Your task to perform on an android device: toggle location history Image 0: 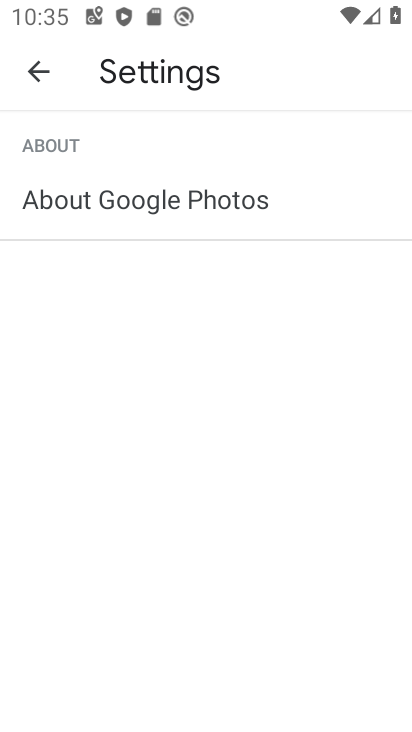
Step 0: press home button
Your task to perform on an android device: toggle location history Image 1: 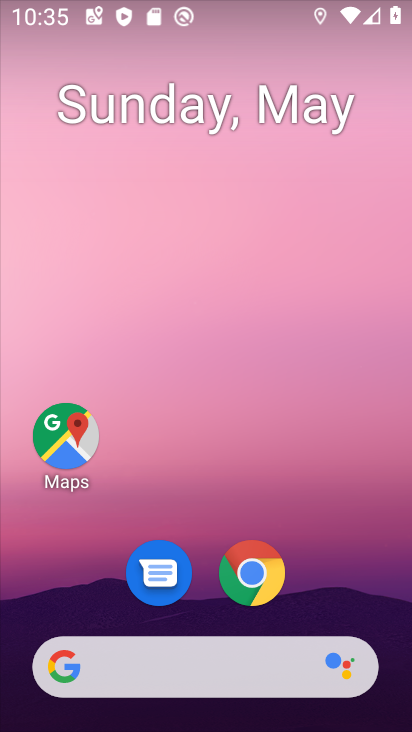
Step 1: drag from (221, 594) to (220, 431)
Your task to perform on an android device: toggle location history Image 2: 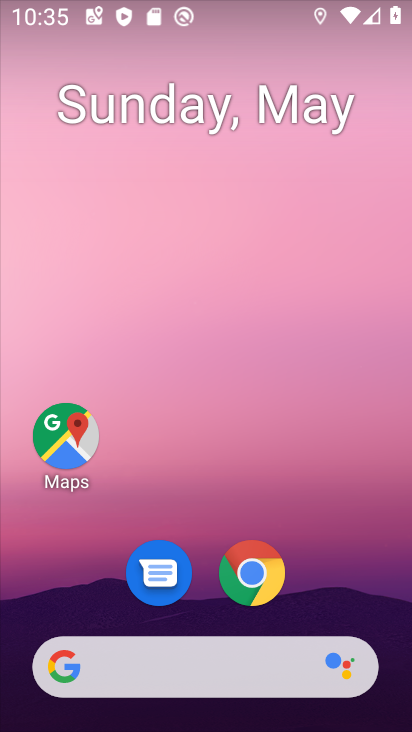
Step 2: drag from (196, 603) to (208, 166)
Your task to perform on an android device: toggle location history Image 3: 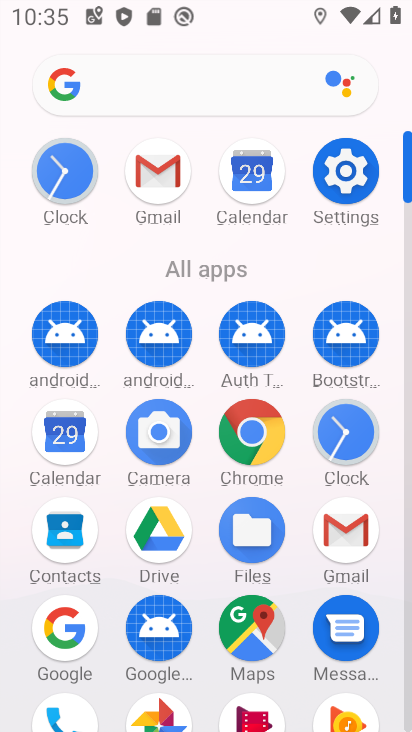
Step 3: click (352, 171)
Your task to perform on an android device: toggle location history Image 4: 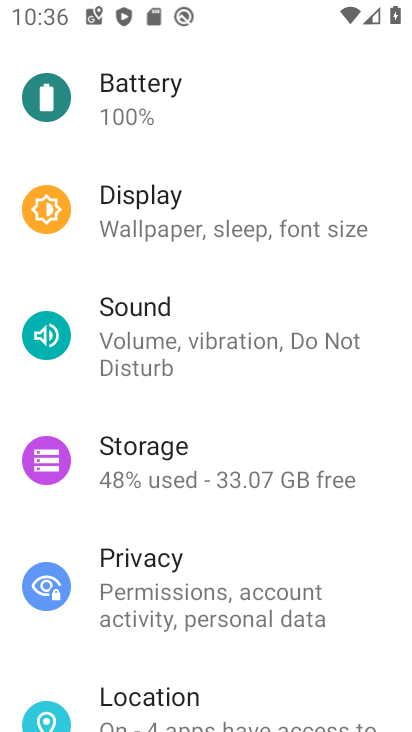
Step 4: drag from (145, 661) to (194, 379)
Your task to perform on an android device: toggle location history Image 5: 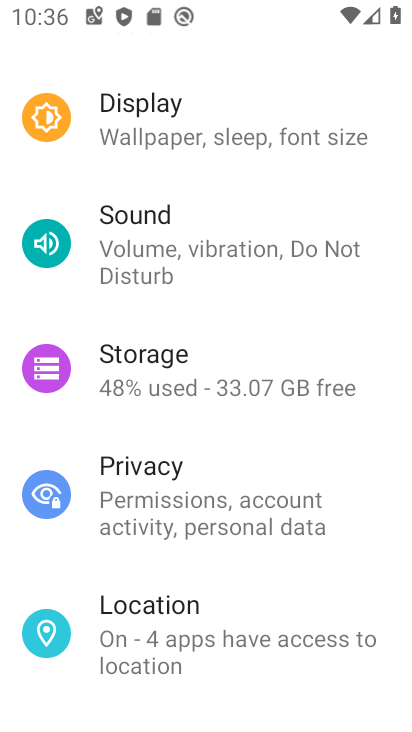
Step 5: click (175, 613)
Your task to perform on an android device: toggle location history Image 6: 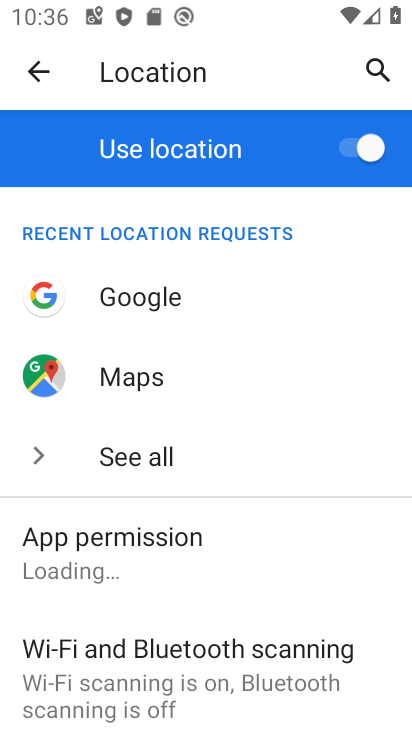
Step 6: drag from (171, 567) to (273, 211)
Your task to perform on an android device: toggle location history Image 7: 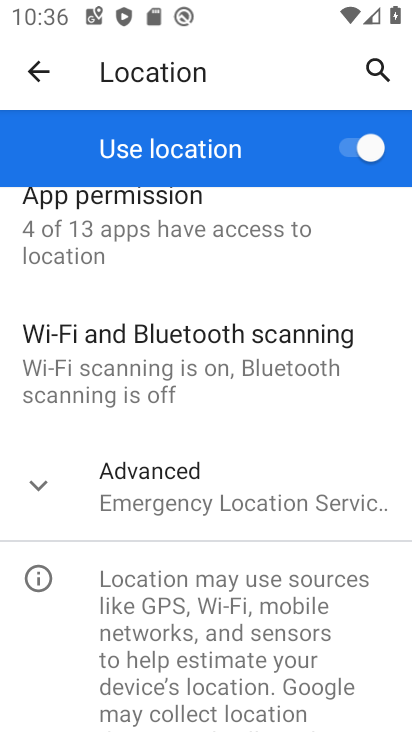
Step 7: click (54, 481)
Your task to perform on an android device: toggle location history Image 8: 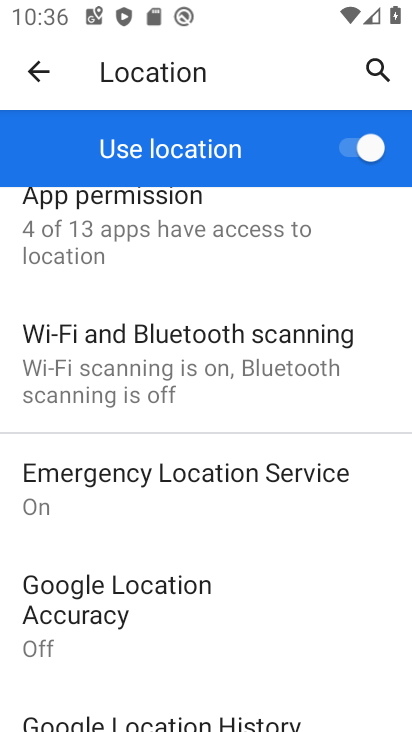
Step 8: drag from (141, 647) to (169, 395)
Your task to perform on an android device: toggle location history Image 9: 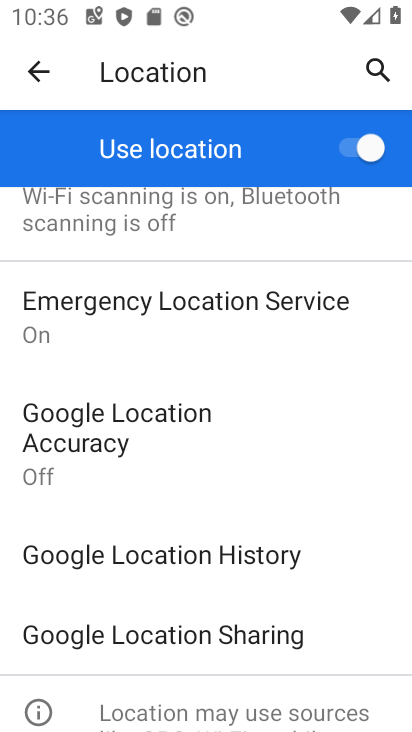
Step 9: click (197, 555)
Your task to perform on an android device: toggle location history Image 10: 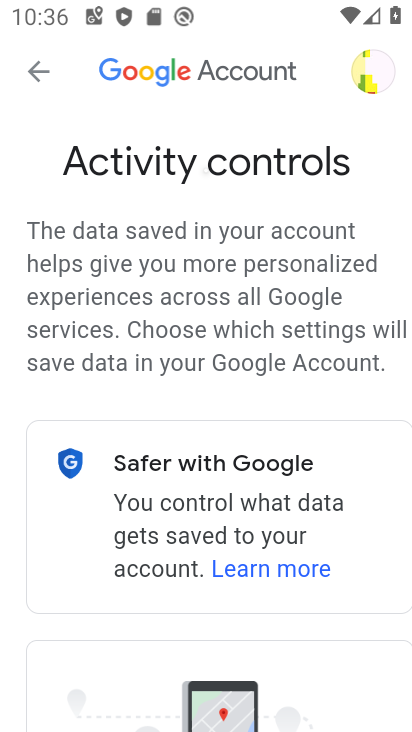
Step 10: task complete